Your task to perform on an android device: Open calendar and show me the third week of next month Image 0: 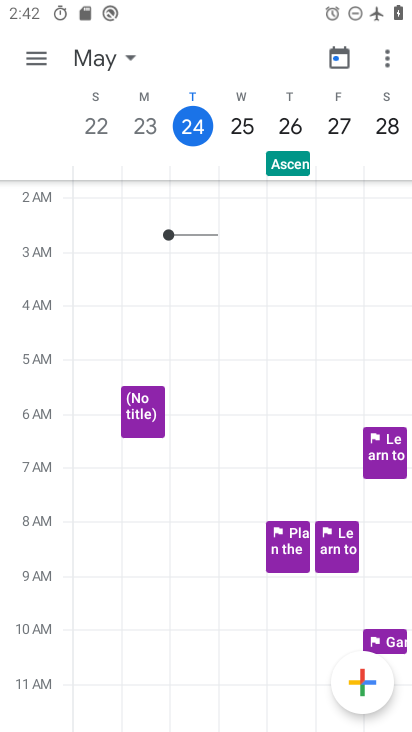
Step 0: press home button
Your task to perform on an android device: Open calendar and show me the third week of next month Image 1: 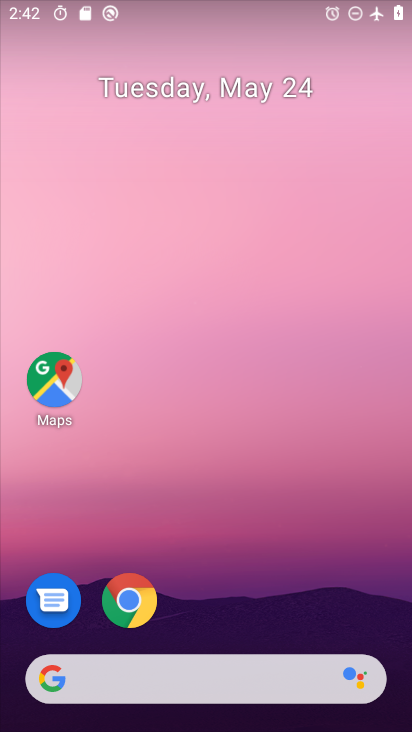
Step 1: drag from (284, 590) to (368, 48)
Your task to perform on an android device: Open calendar and show me the third week of next month Image 2: 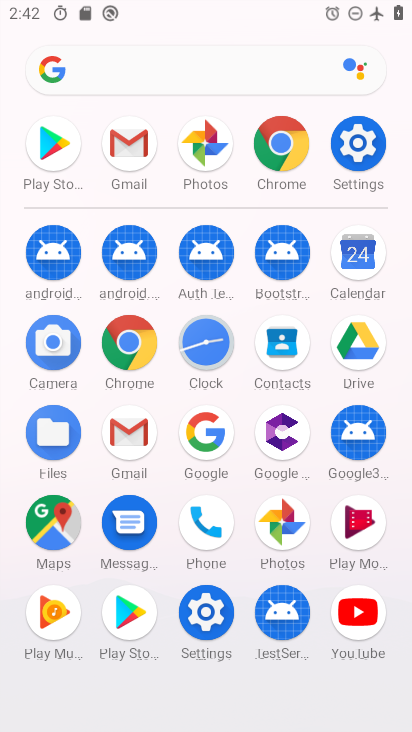
Step 2: click (346, 258)
Your task to perform on an android device: Open calendar and show me the third week of next month Image 3: 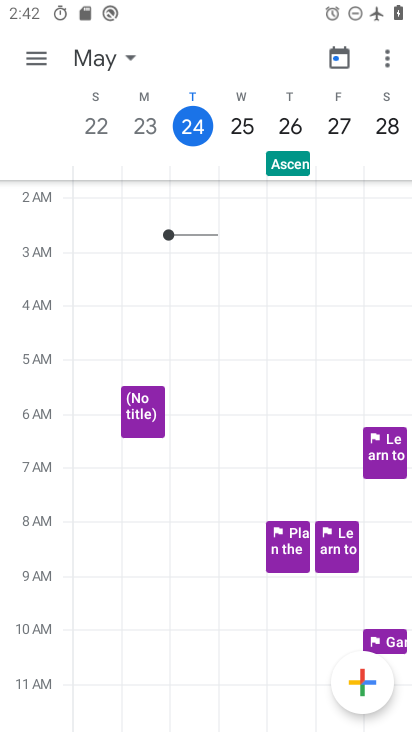
Step 3: click (45, 55)
Your task to perform on an android device: Open calendar and show me the third week of next month Image 4: 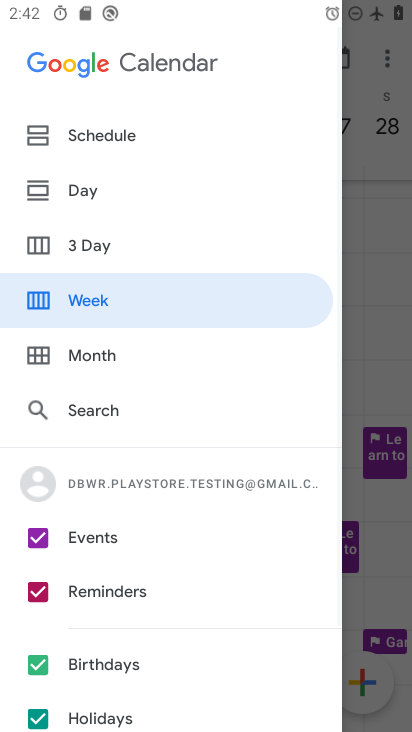
Step 4: click (173, 589)
Your task to perform on an android device: Open calendar and show me the third week of next month Image 5: 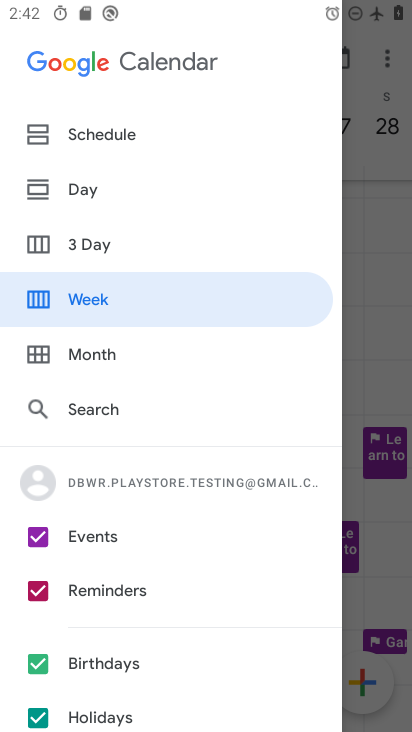
Step 5: click (110, 298)
Your task to perform on an android device: Open calendar and show me the third week of next month Image 6: 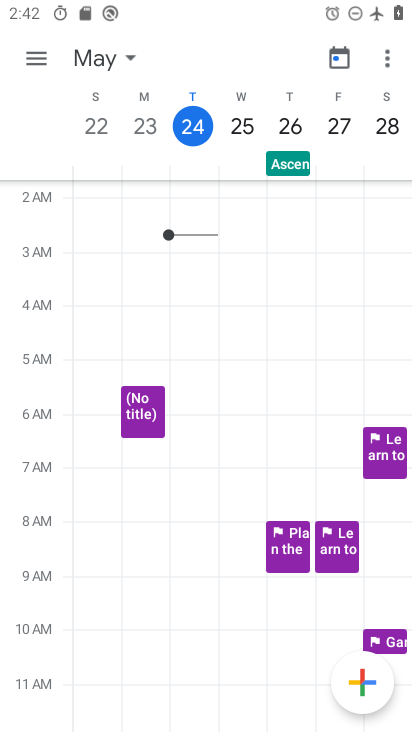
Step 6: click (127, 60)
Your task to perform on an android device: Open calendar and show me the third week of next month Image 7: 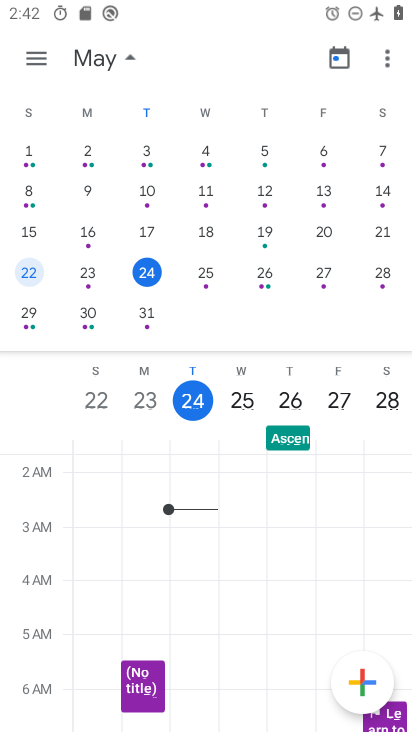
Step 7: drag from (358, 252) to (55, 289)
Your task to perform on an android device: Open calendar and show me the third week of next month Image 8: 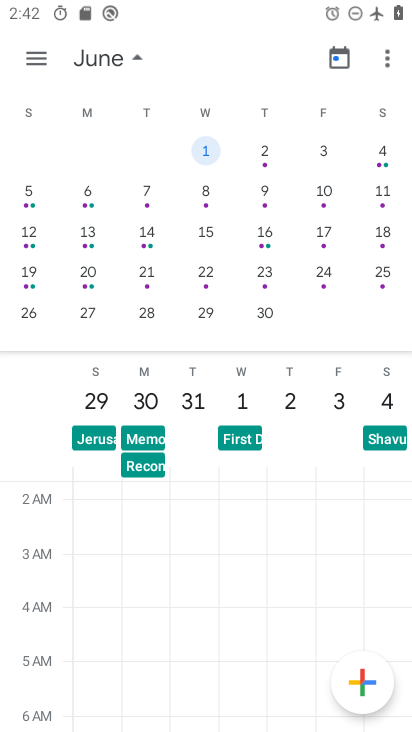
Step 8: click (27, 280)
Your task to perform on an android device: Open calendar and show me the third week of next month Image 9: 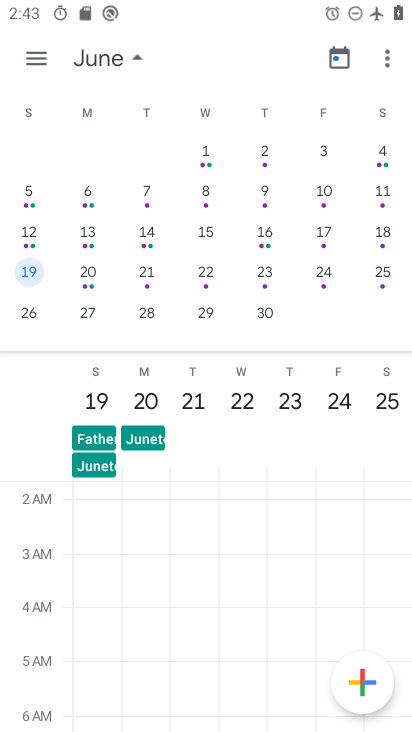
Step 9: task complete